Your task to perform on an android device: check storage Image 0: 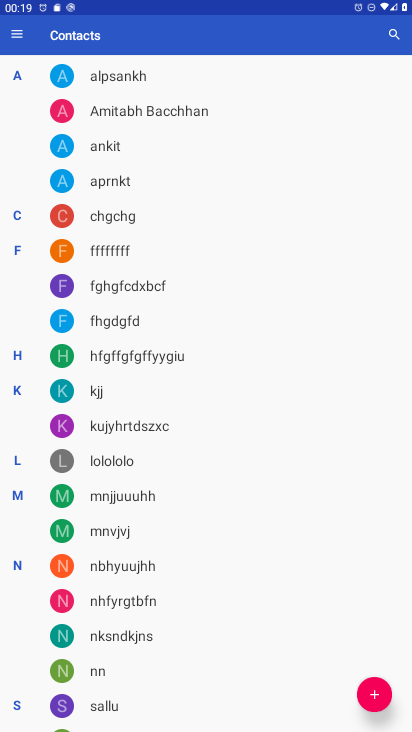
Step 0: press home button
Your task to perform on an android device: check storage Image 1: 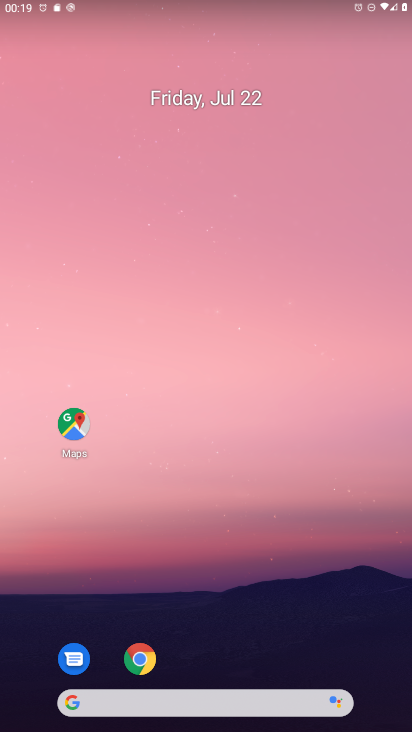
Step 1: drag from (190, 690) to (239, 324)
Your task to perform on an android device: check storage Image 2: 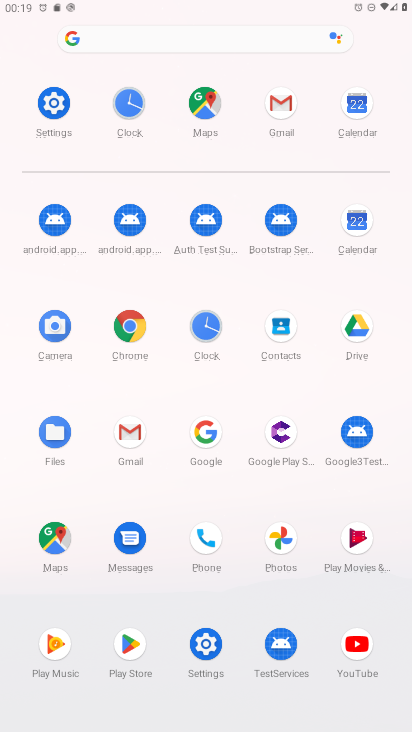
Step 2: click (54, 101)
Your task to perform on an android device: check storage Image 3: 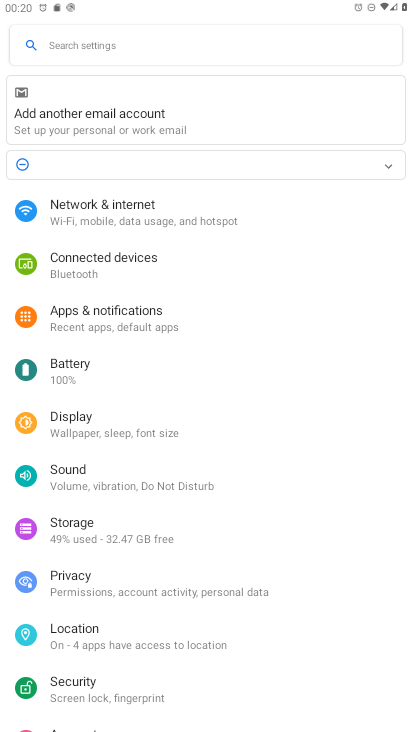
Step 3: click (76, 532)
Your task to perform on an android device: check storage Image 4: 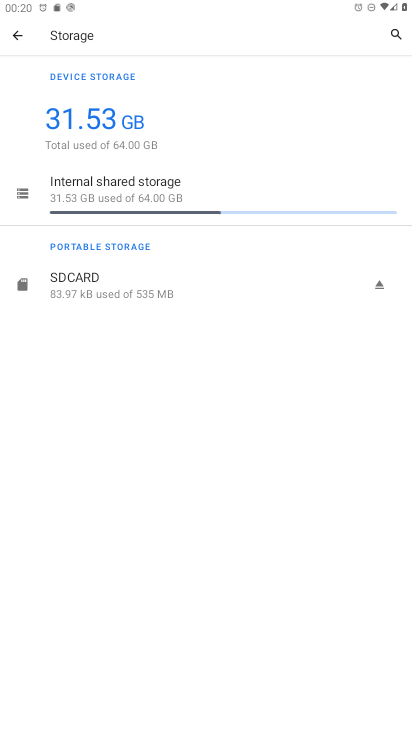
Step 4: task complete